Your task to perform on an android device: Go to Maps Image 0: 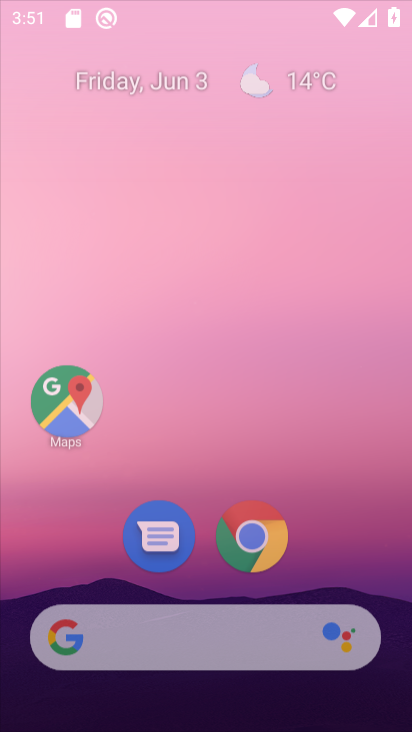
Step 0: click (26, 77)
Your task to perform on an android device: Go to Maps Image 1: 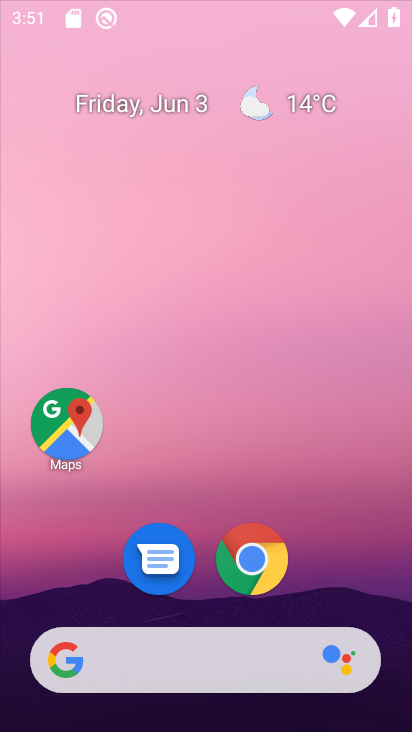
Step 1: drag from (226, 675) to (176, 227)
Your task to perform on an android device: Go to Maps Image 2: 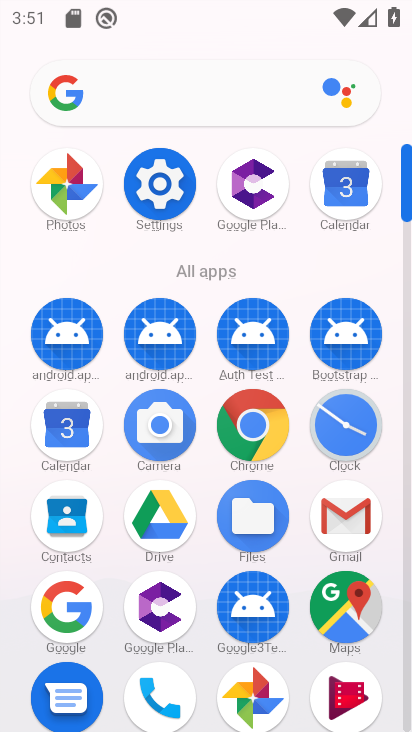
Step 2: click (340, 614)
Your task to perform on an android device: Go to Maps Image 3: 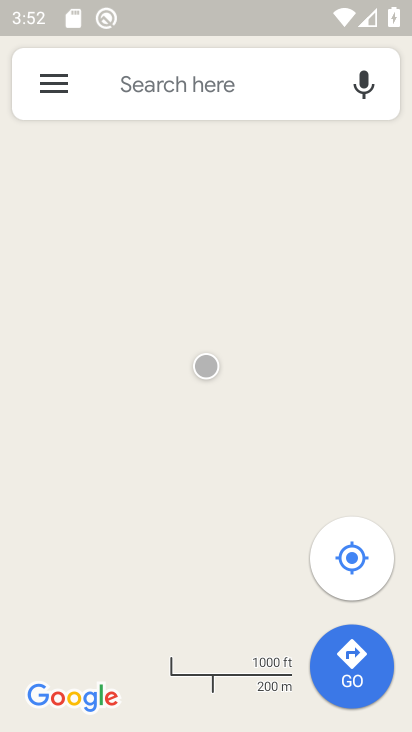
Step 3: task complete